Your task to perform on an android device: turn on the 24-hour format for clock Image 0: 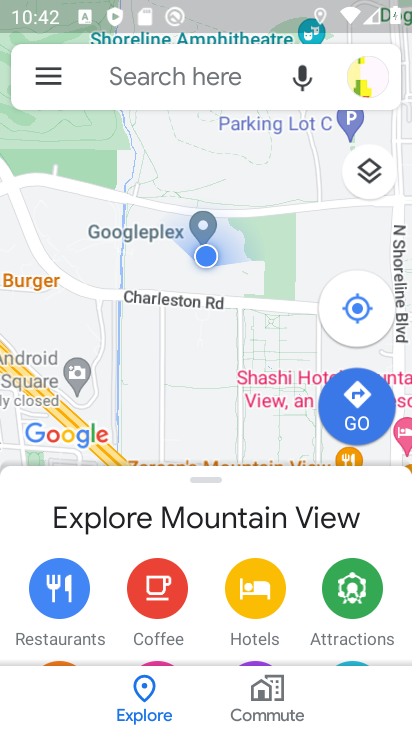
Step 0: press home button
Your task to perform on an android device: turn on the 24-hour format for clock Image 1: 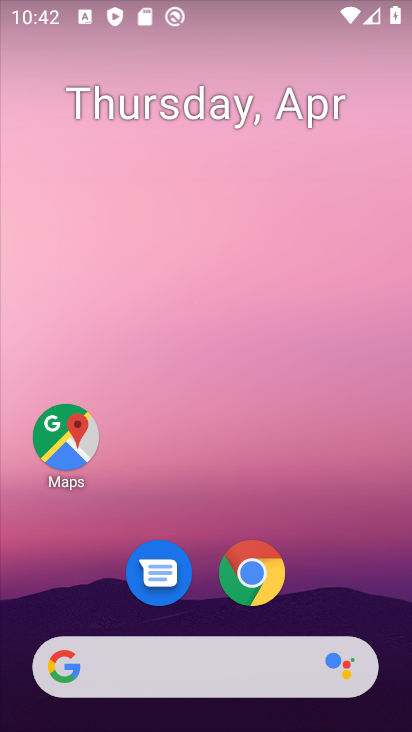
Step 1: drag from (339, 605) to (316, 194)
Your task to perform on an android device: turn on the 24-hour format for clock Image 2: 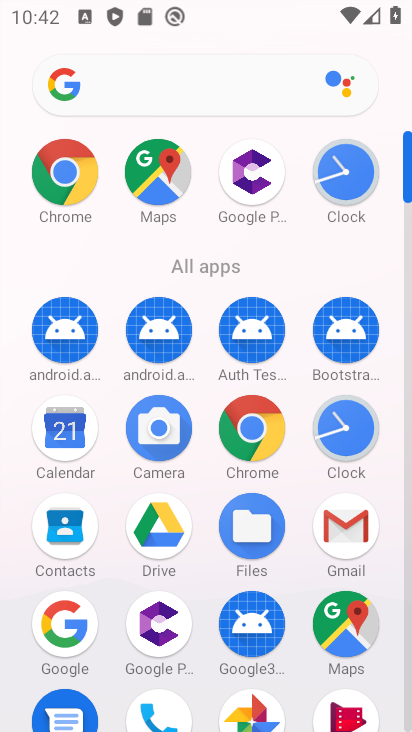
Step 2: click (344, 422)
Your task to perform on an android device: turn on the 24-hour format for clock Image 3: 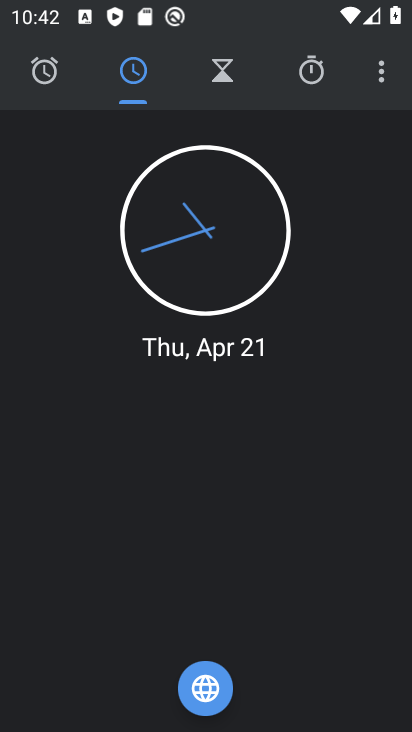
Step 3: click (383, 63)
Your task to perform on an android device: turn on the 24-hour format for clock Image 4: 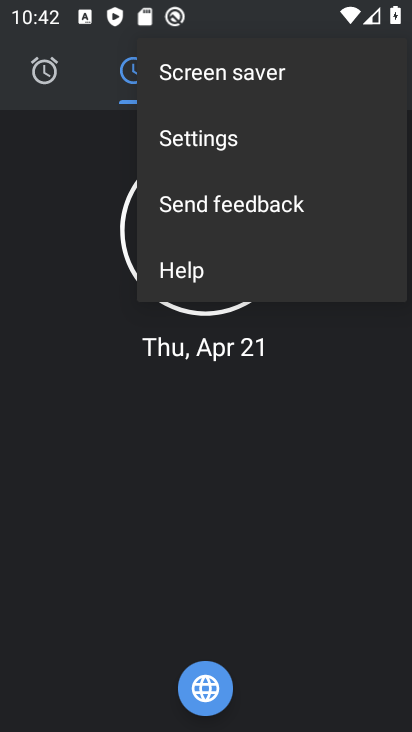
Step 4: click (222, 133)
Your task to perform on an android device: turn on the 24-hour format for clock Image 5: 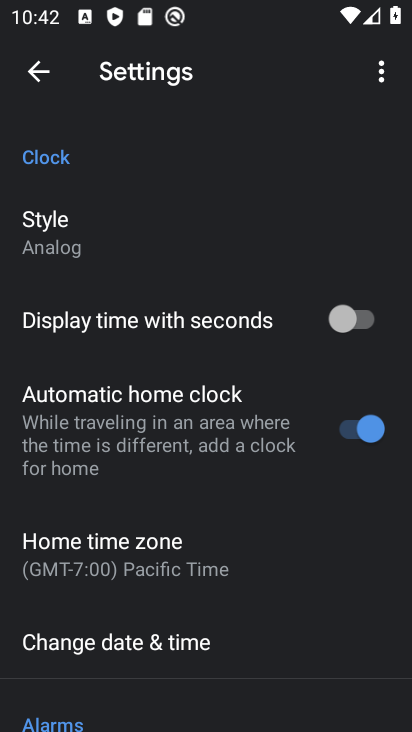
Step 5: drag from (297, 613) to (210, 123)
Your task to perform on an android device: turn on the 24-hour format for clock Image 6: 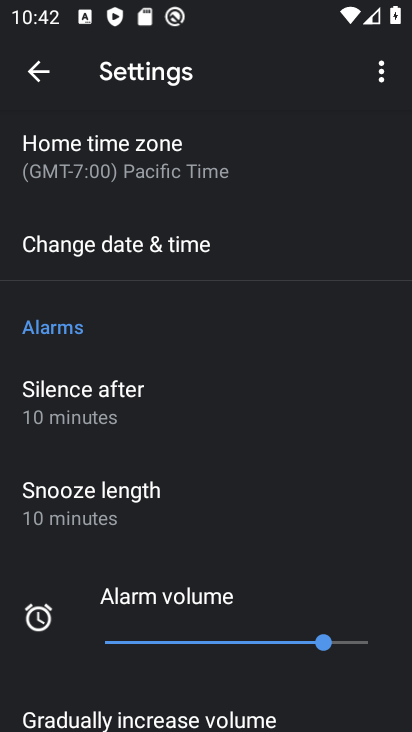
Step 6: click (195, 235)
Your task to perform on an android device: turn on the 24-hour format for clock Image 7: 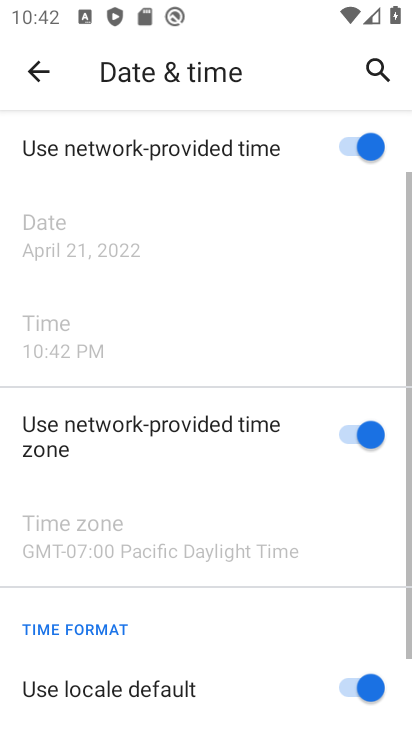
Step 7: drag from (262, 513) to (274, 130)
Your task to perform on an android device: turn on the 24-hour format for clock Image 8: 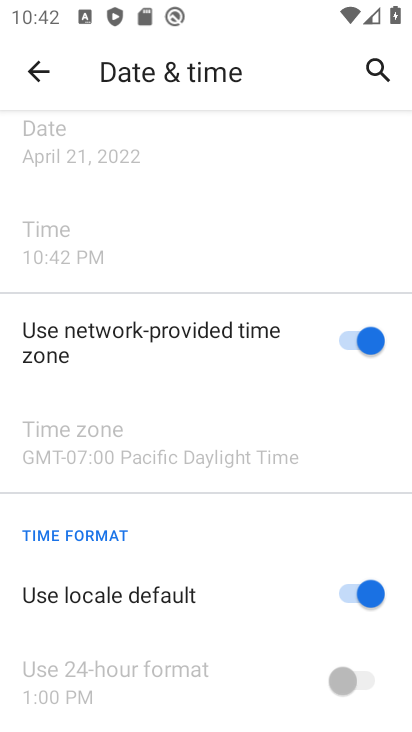
Step 8: drag from (276, 619) to (269, 192)
Your task to perform on an android device: turn on the 24-hour format for clock Image 9: 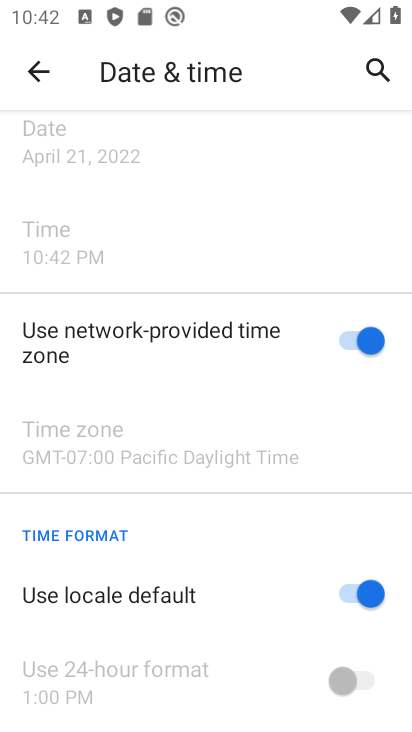
Step 9: click (364, 590)
Your task to perform on an android device: turn on the 24-hour format for clock Image 10: 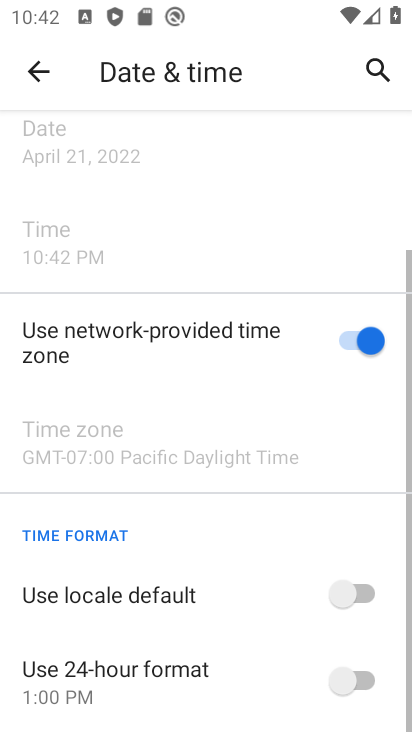
Step 10: click (336, 688)
Your task to perform on an android device: turn on the 24-hour format for clock Image 11: 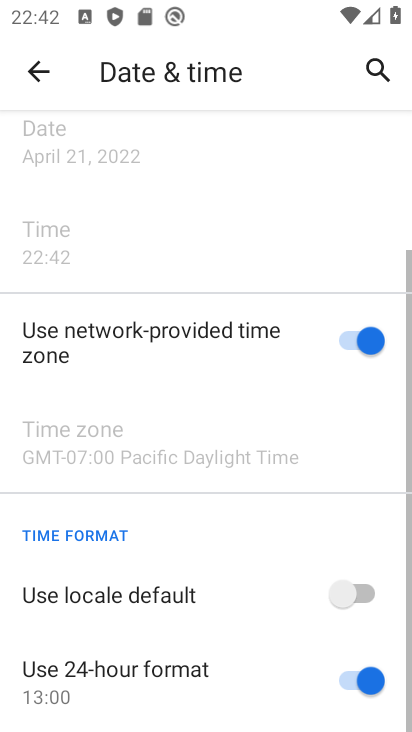
Step 11: task complete